Your task to perform on an android device: uninstall "Etsy: Buy & Sell Unique Items" Image 0: 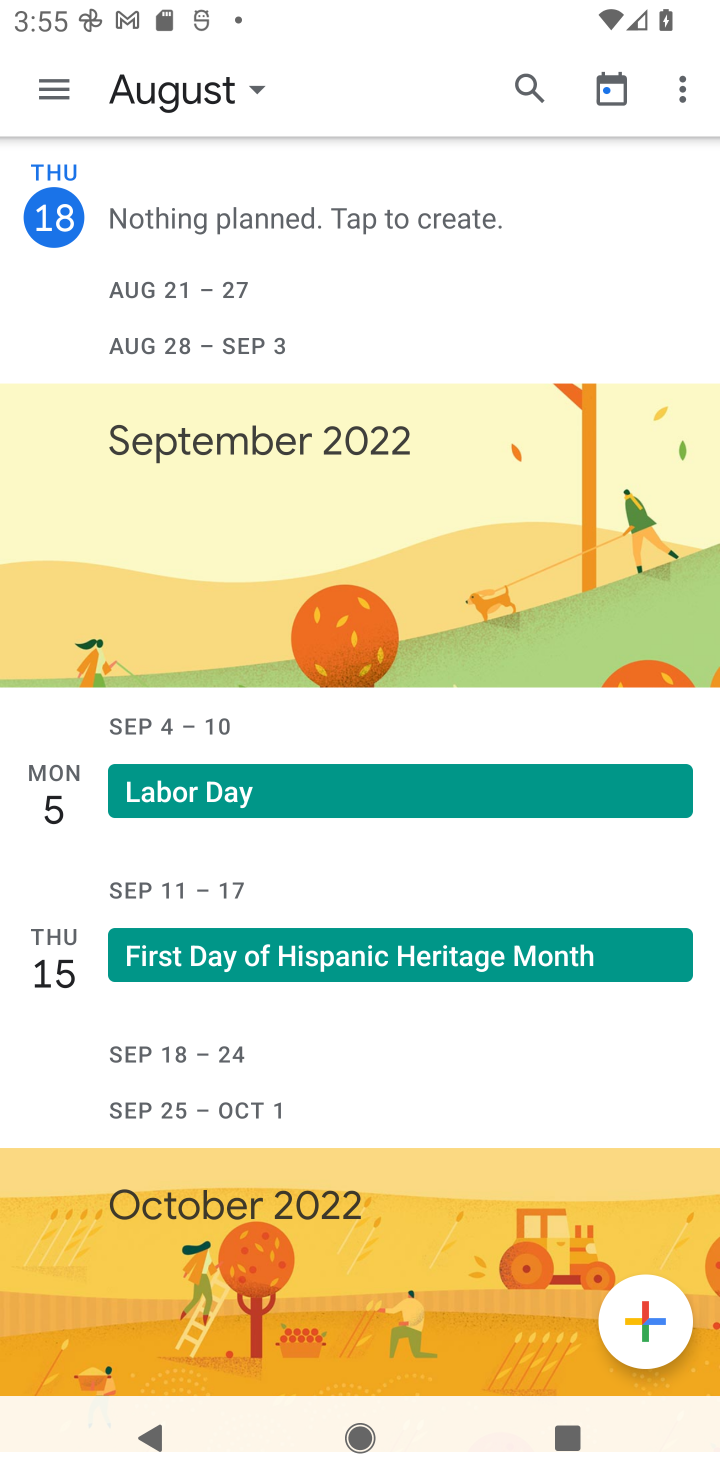
Step 0: press home button
Your task to perform on an android device: uninstall "Etsy: Buy & Sell Unique Items" Image 1: 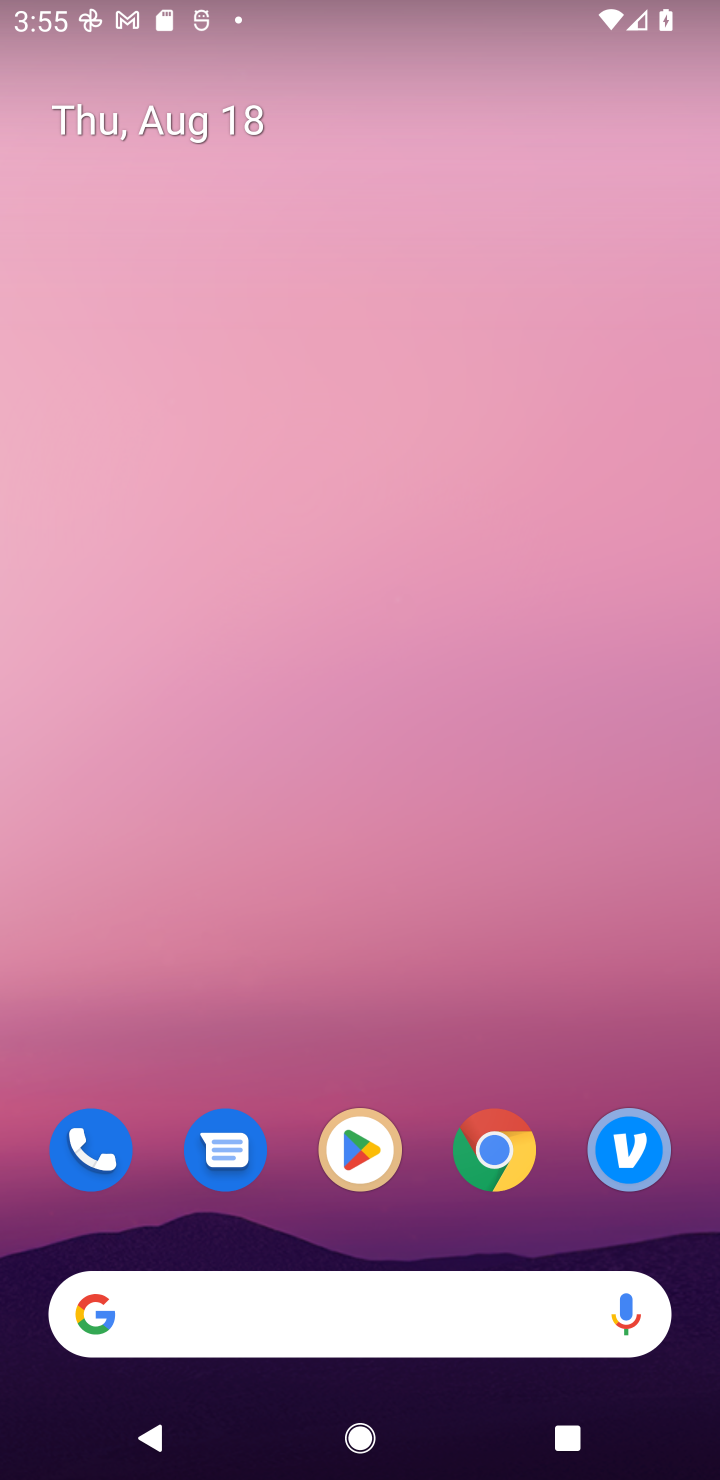
Step 1: click (364, 1149)
Your task to perform on an android device: uninstall "Etsy: Buy & Sell Unique Items" Image 2: 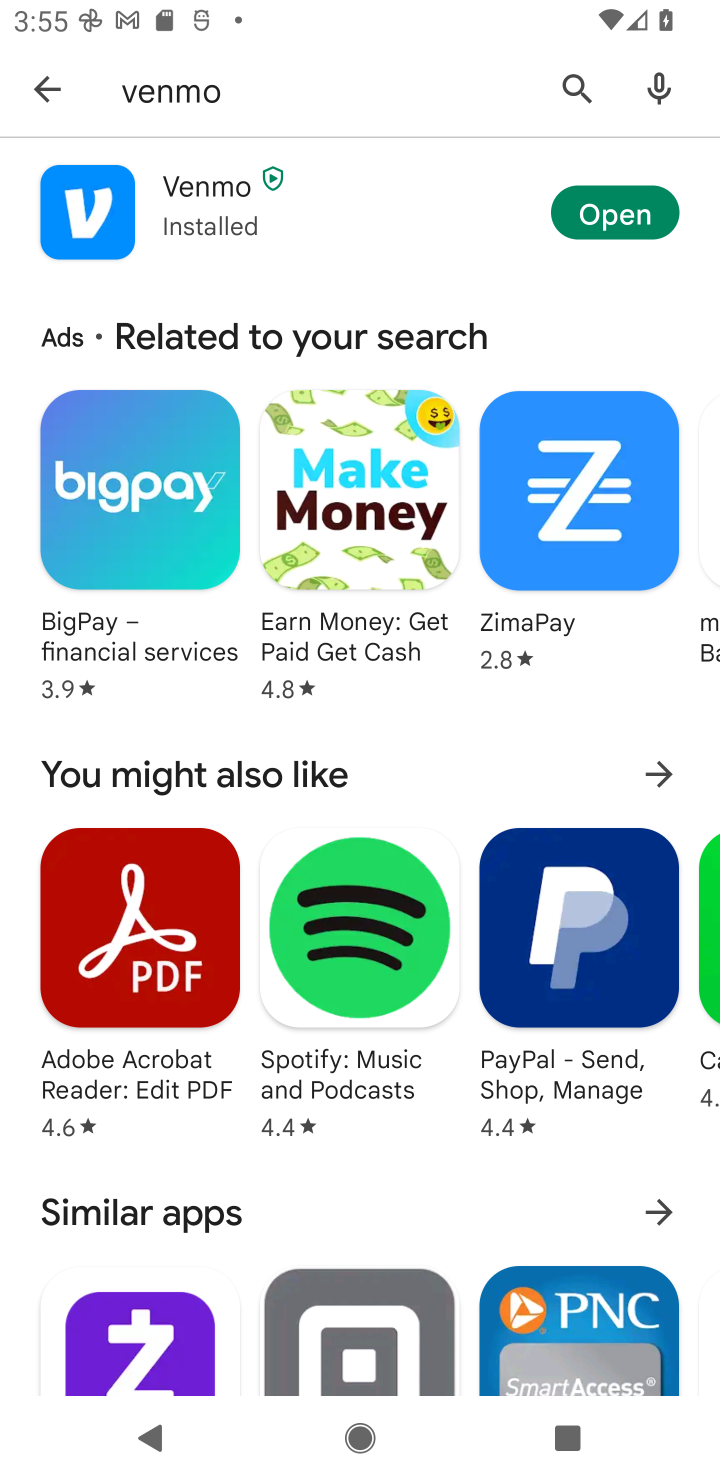
Step 2: click (569, 82)
Your task to perform on an android device: uninstall "Etsy: Buy & Sell Unique Items" Image 3: 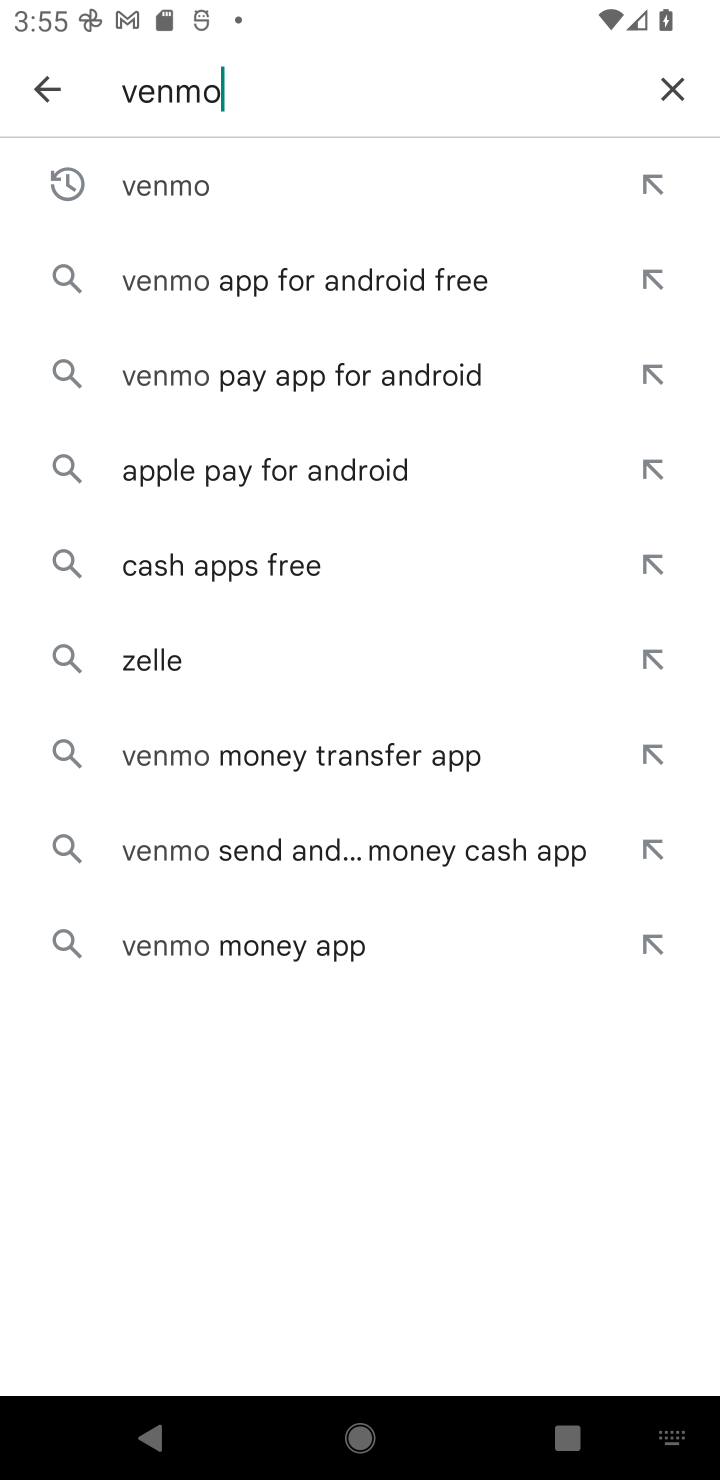
Step 3: click (673, 84)
Your task to perform on an android device: uninstall "Etsy: Buy & Sell Unique Items" Image 4: 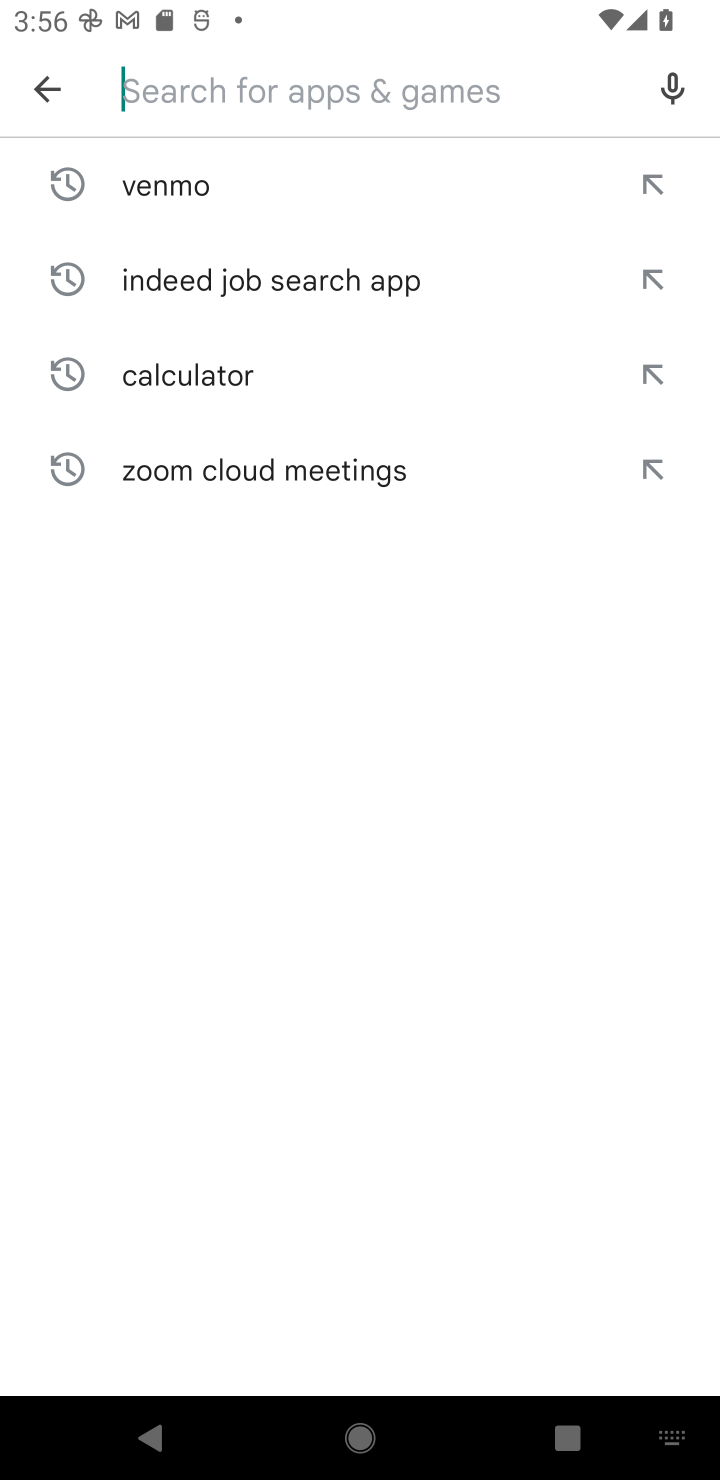
Step 4: type "Etsy: Buy & Sell Unique Items"
Your task to perform on an android device: uninstall "Etsy: Buy & Sell Unique Items" Image 5: 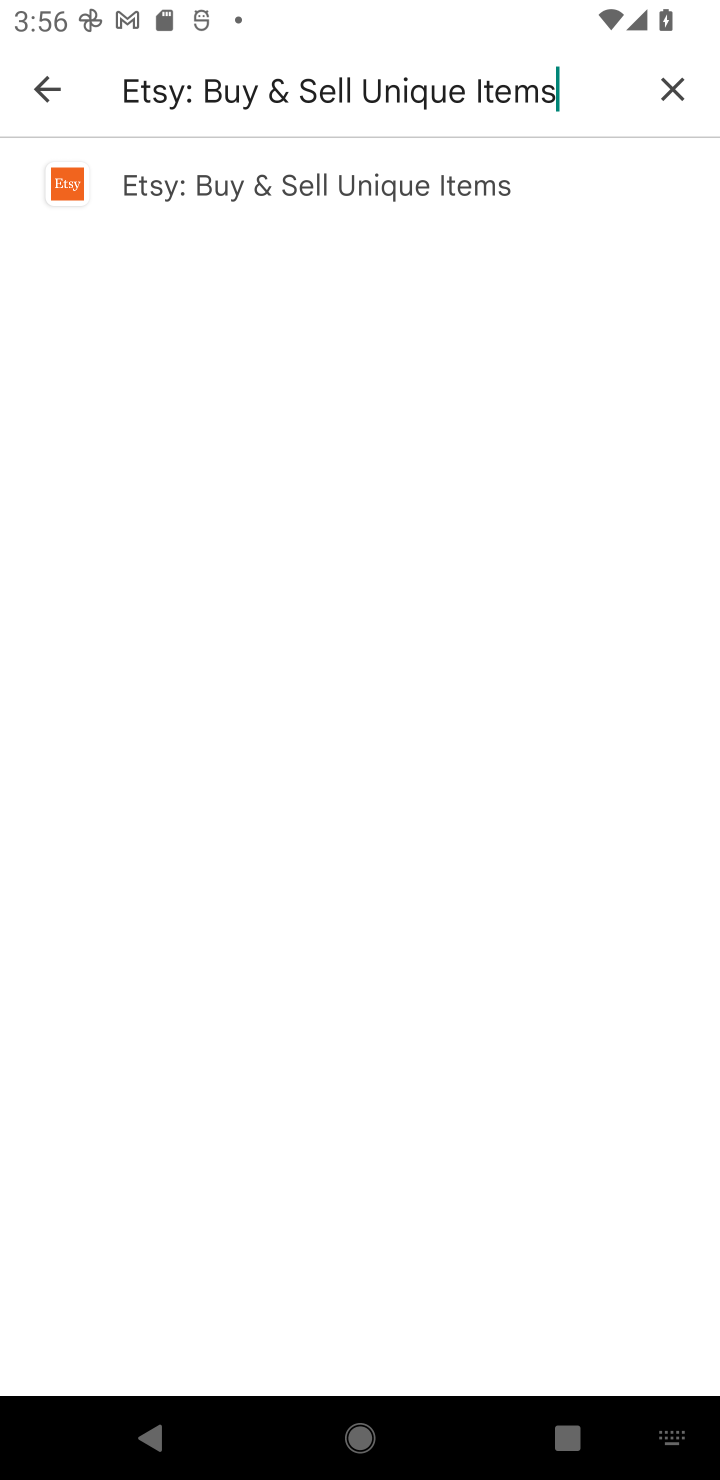
Step 5: click (277, 189)
Your task to perform on an android device: uninstall "Etsy: Buy & Sell Unique Items" Image 6: 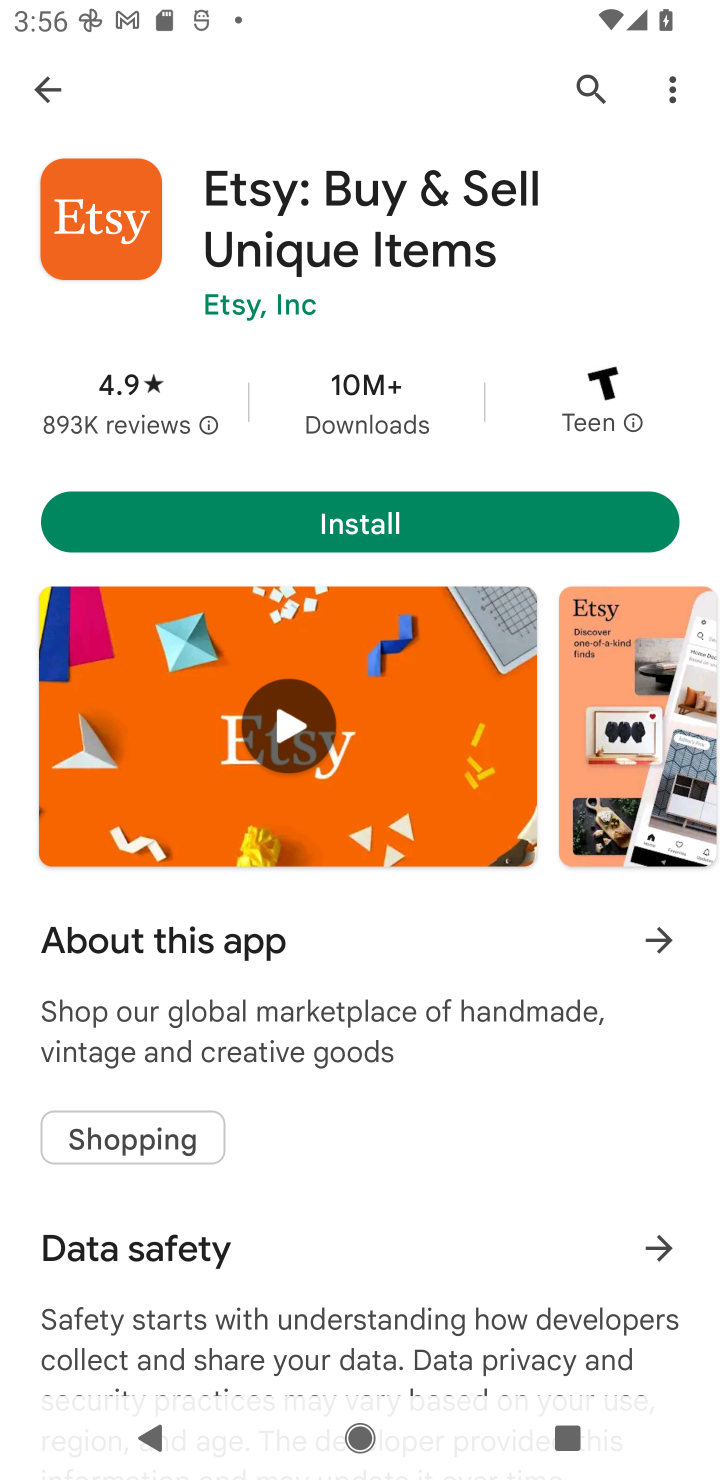
Step 6: task complete